Your task to perform on an android device: Go to Google Image 0: 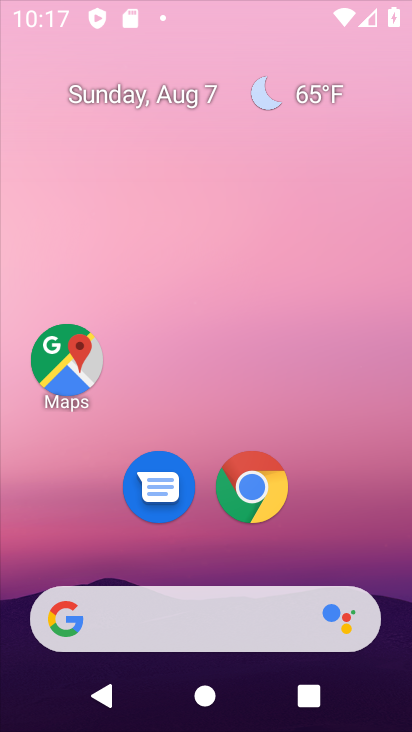
Step 0: click (363, 188)
Your task to perform on an android device: Go to Google Image 1: 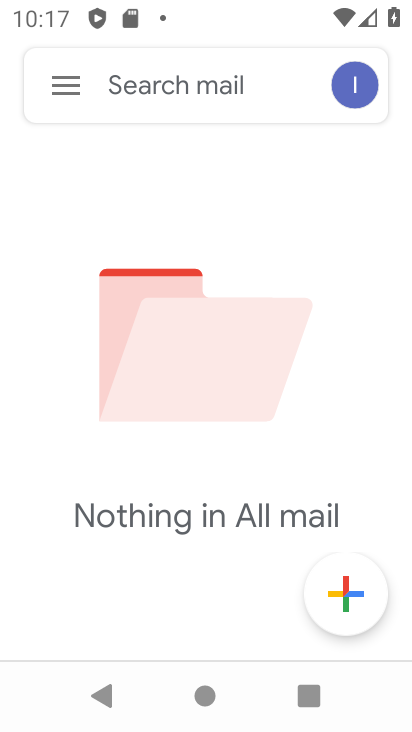
Step 1: press home button
Your task to perform on an android device: Go to Google Image 2: 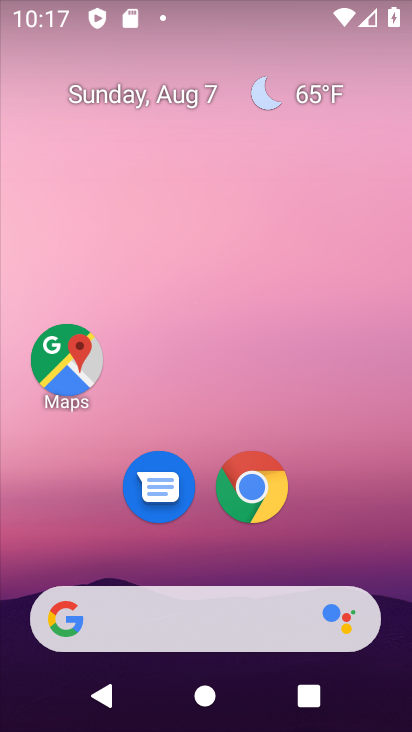
Step 2: drag from (395, 578) to (337, 119)
Your task to perform on an android device: Go to Google Image 3: 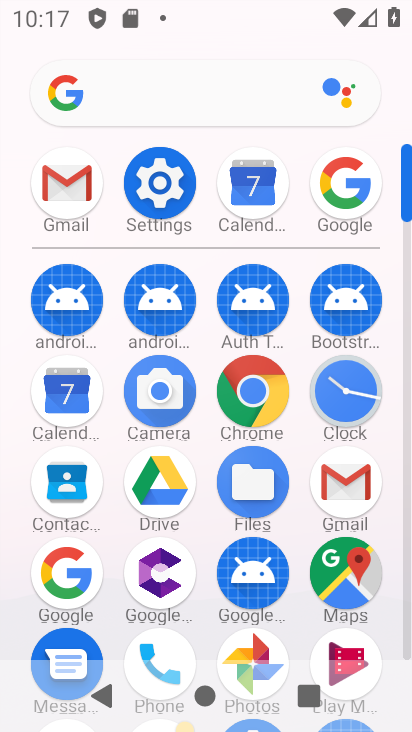
Step 3: click (86, 565)
Your task to perform on an android device: Go to Google Image 4: 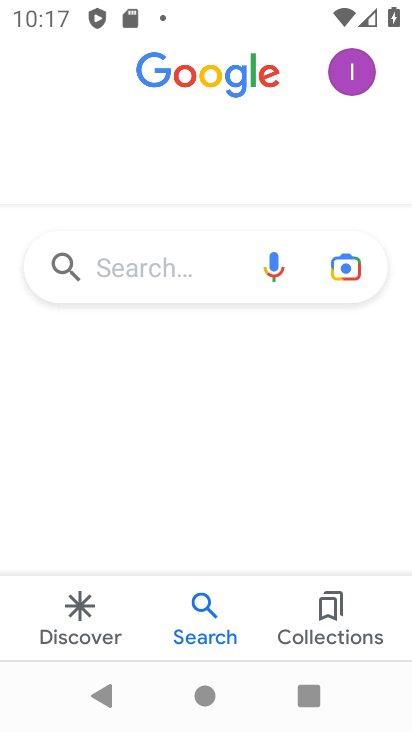
Step 4: task complete